Your task to perform on an android device: uninstall "Google Duo" Image 0: 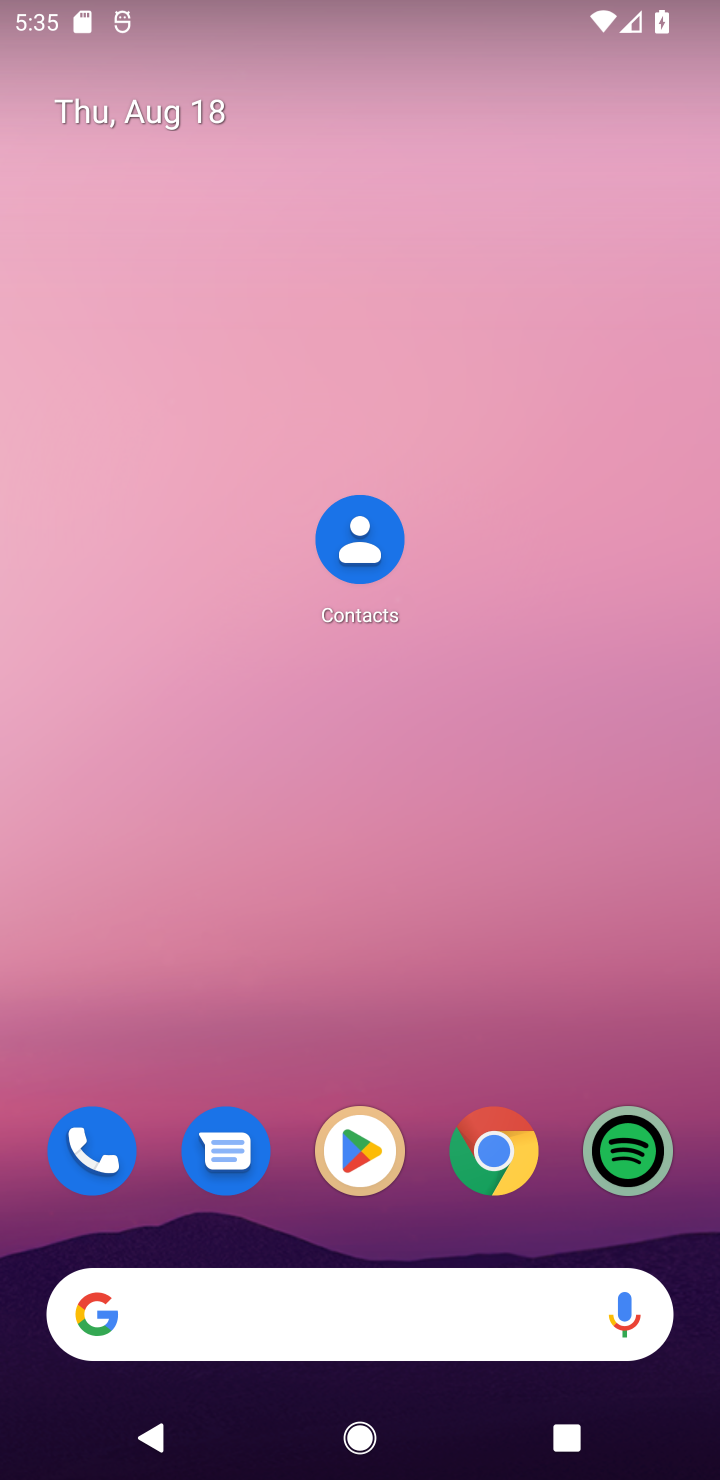
Step 0: click (381, 1180)
Your task to perform on an android device: uninstall "Google Duo" Image 1: 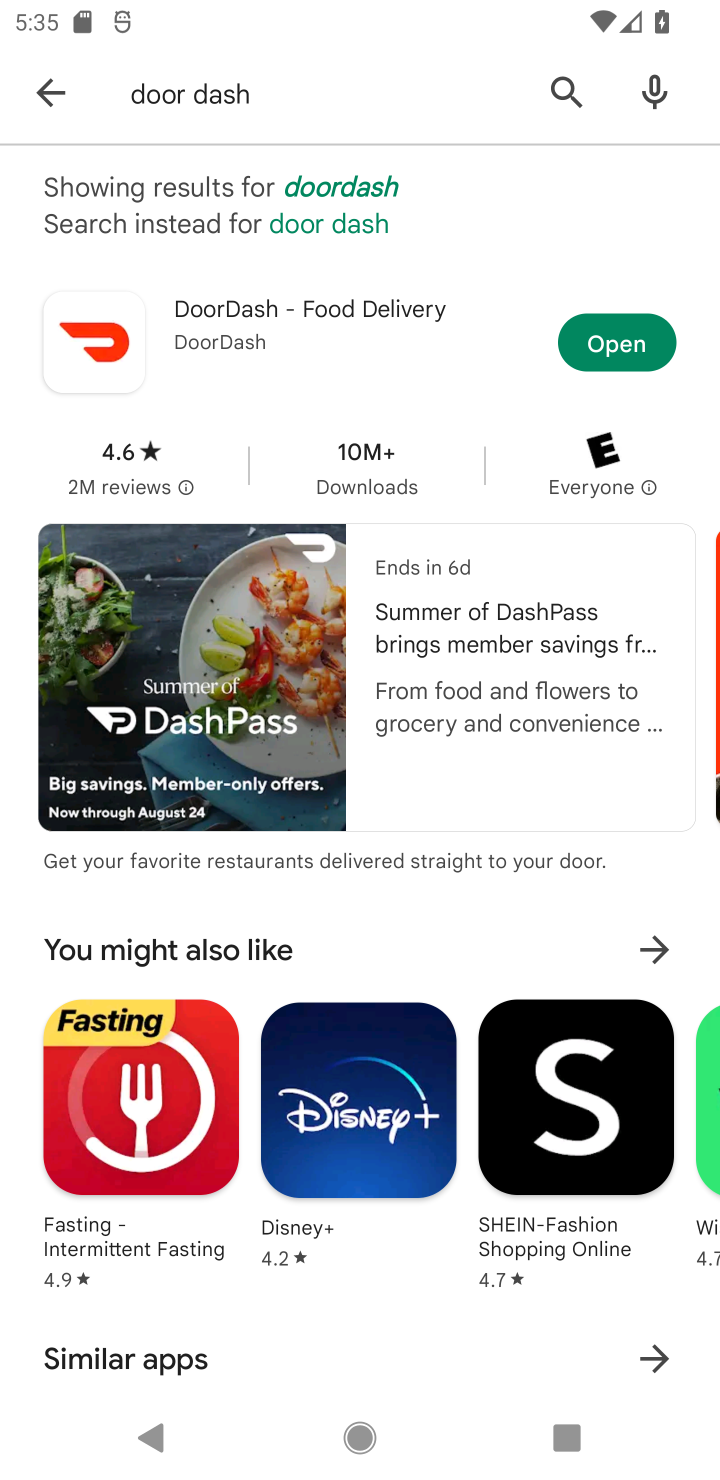
Step 1: click (556, 110)
Your task to perform on an android device: uninstall "Google Duo" Image 2: 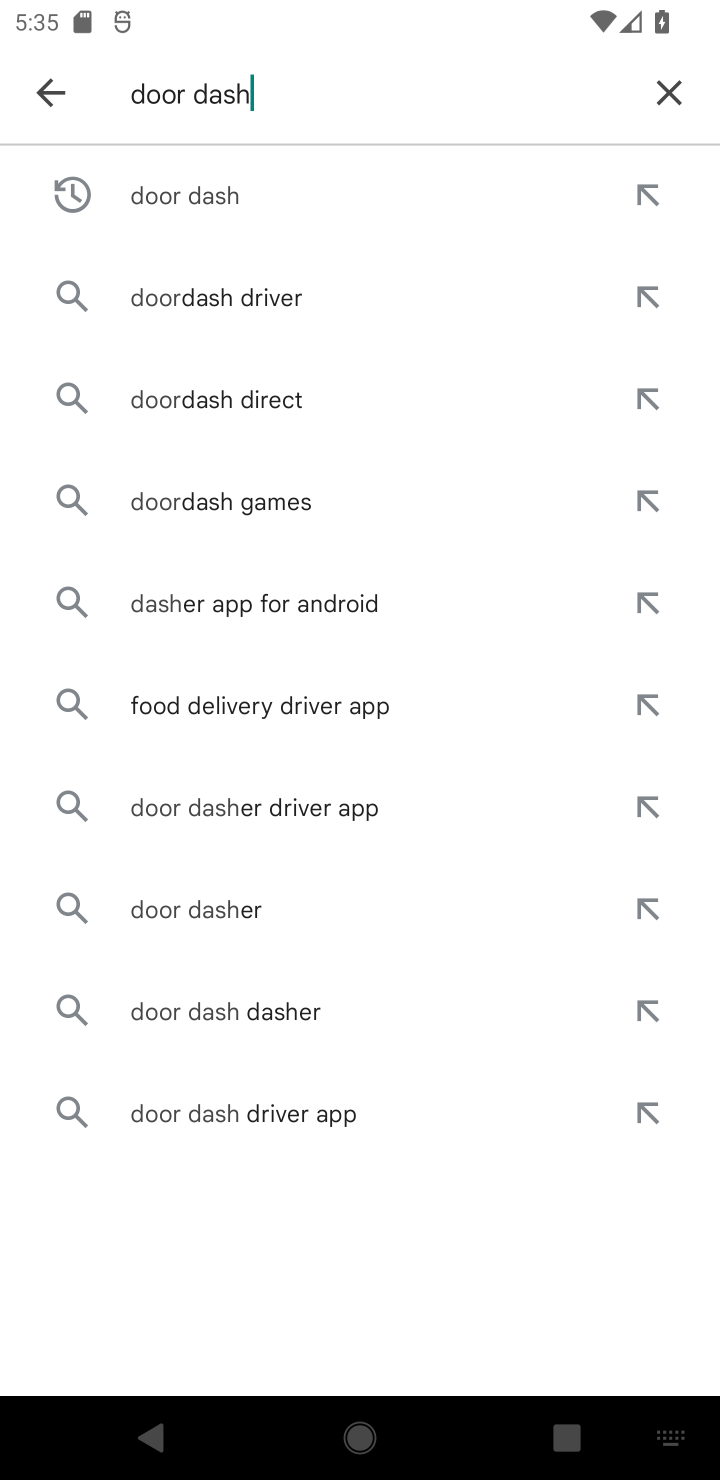
Step 2: click (639, 99)
Your task to perform on an android device: uninstall "Google Duo" Image 3: 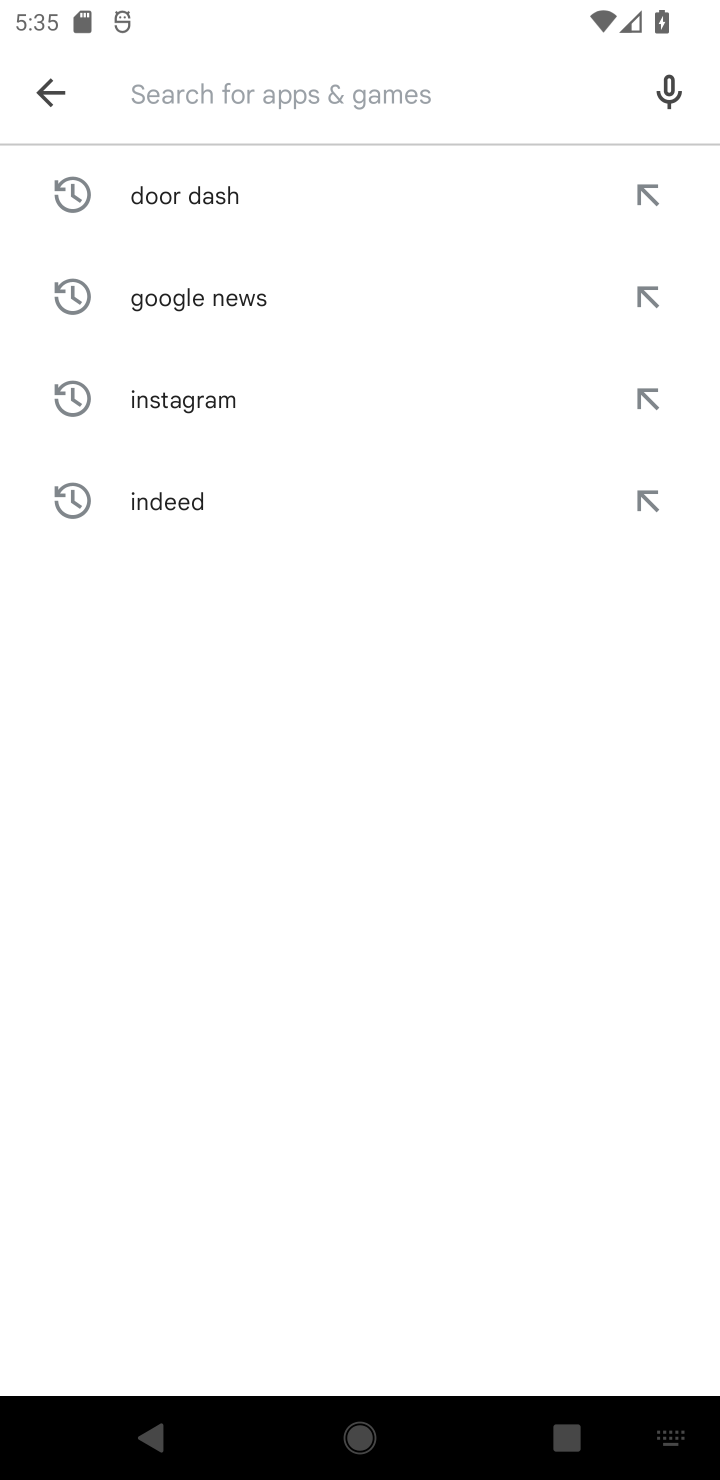
Step 3: type "duo"
Your task to perform on an android device: uninstall "Google Duo" Image 4: 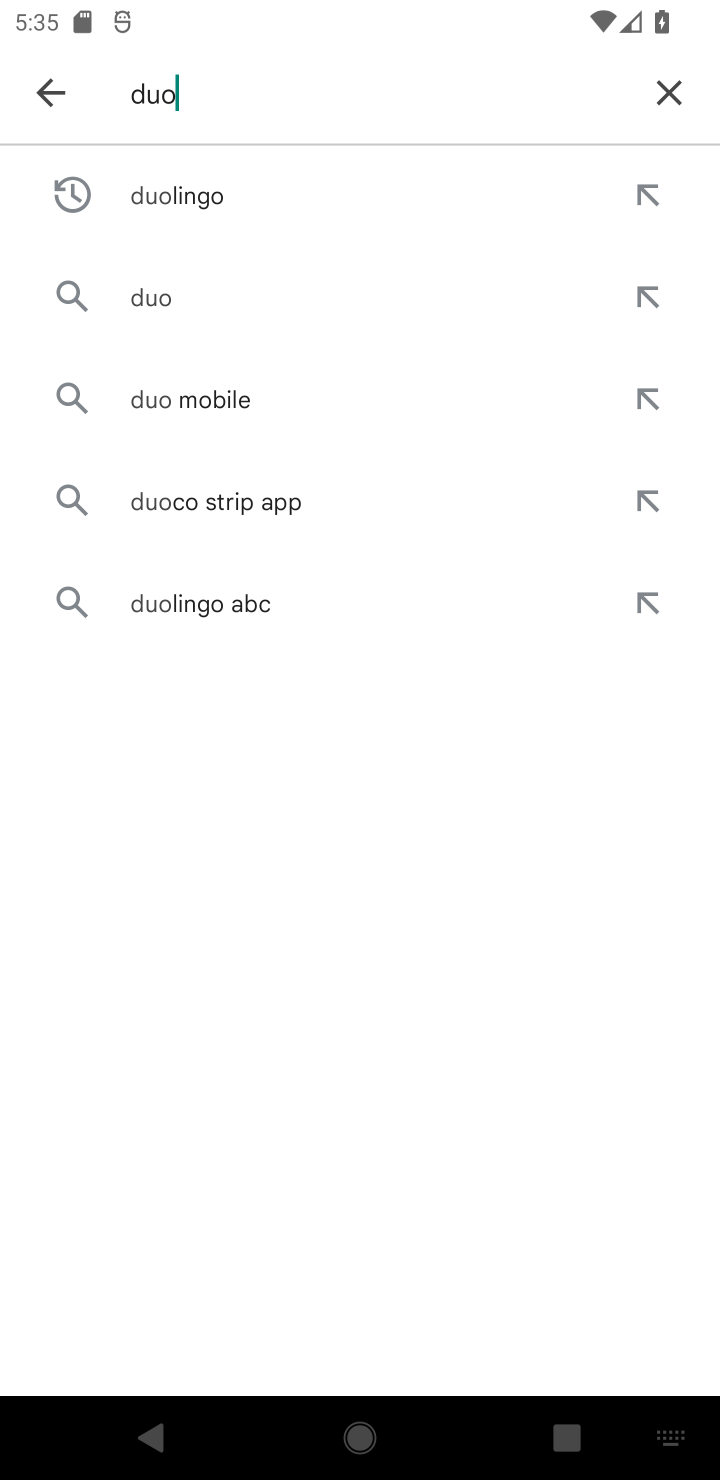
Step 4: click (267, 294)
Your task to perform on an android device: uninstall "Google Duo" Image 5: 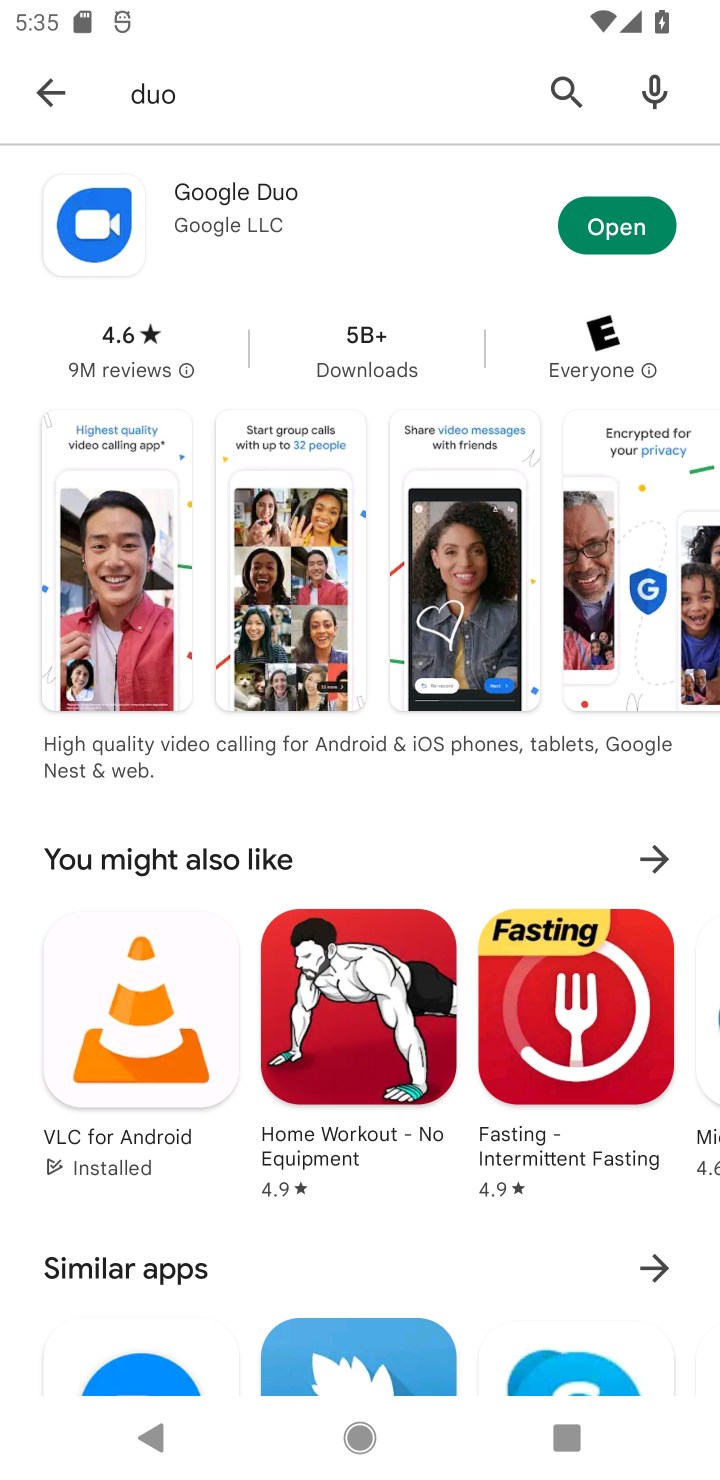
Step 5: click (585, 246)
Your task to perform on an android device: uninstall "Google Duo" Image 6: 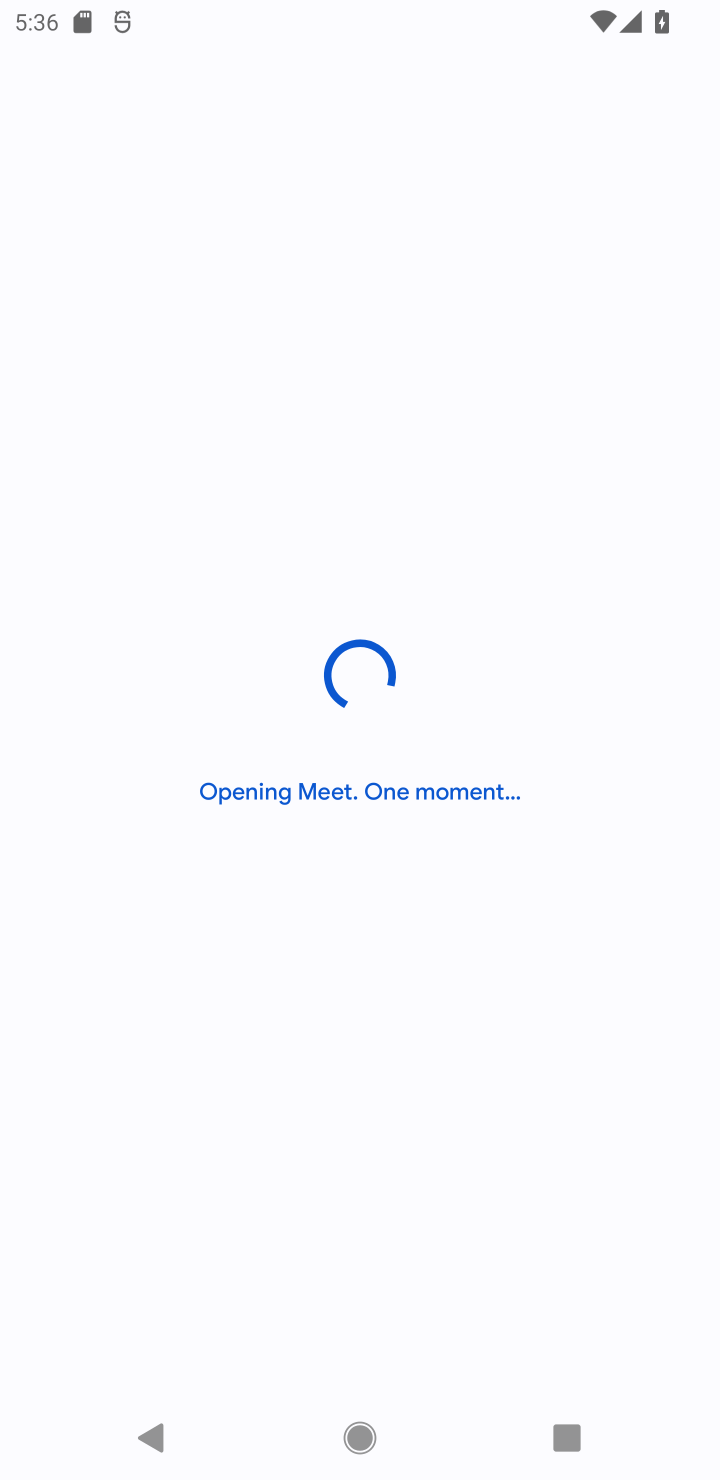
Step 6: press back button
Your task to perform on an android device: uninstall "Google Duo" Image 7: 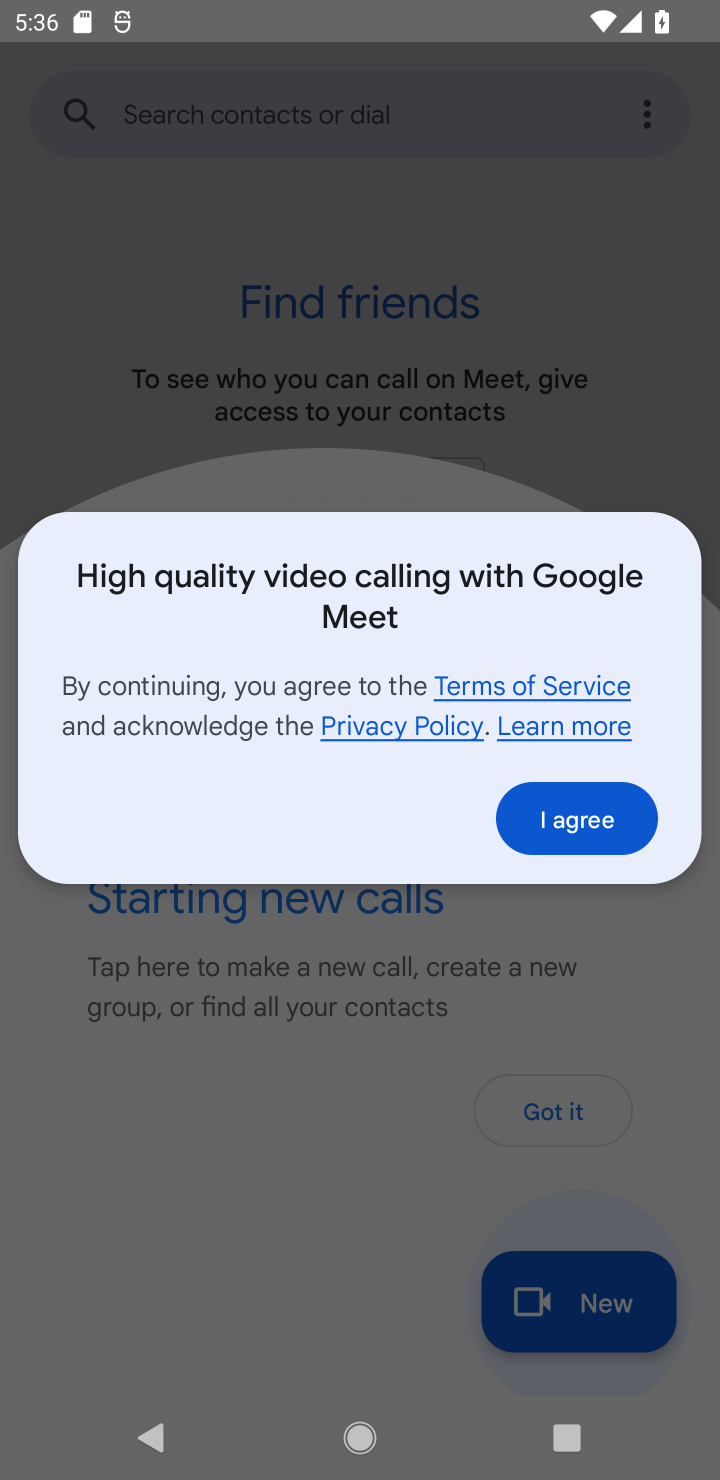
Step 7: click (620, 815)
Your task to perform on an android device: uninstall "Google Duo" Image 8: 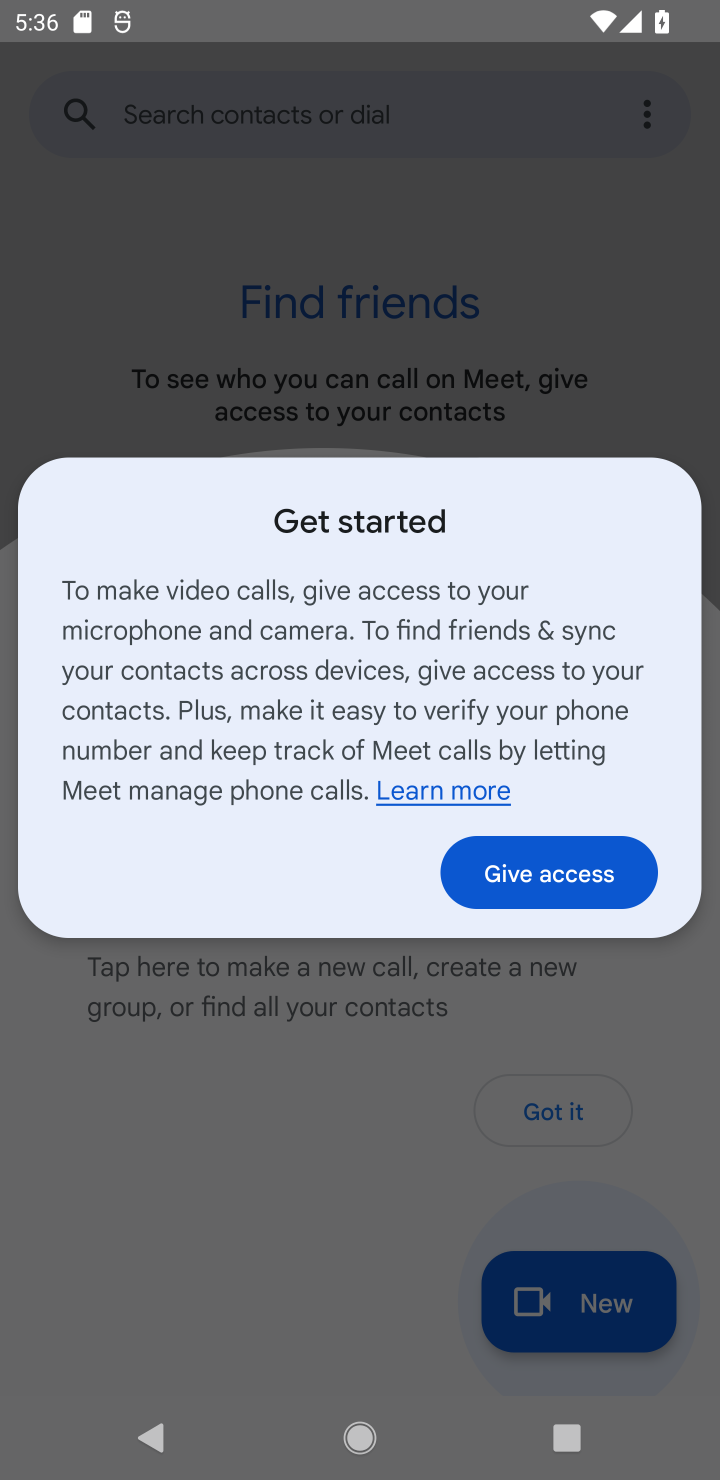
Step 8: press back button
Your task to perform on an android device: uninstall "Google Duo" Image 9: 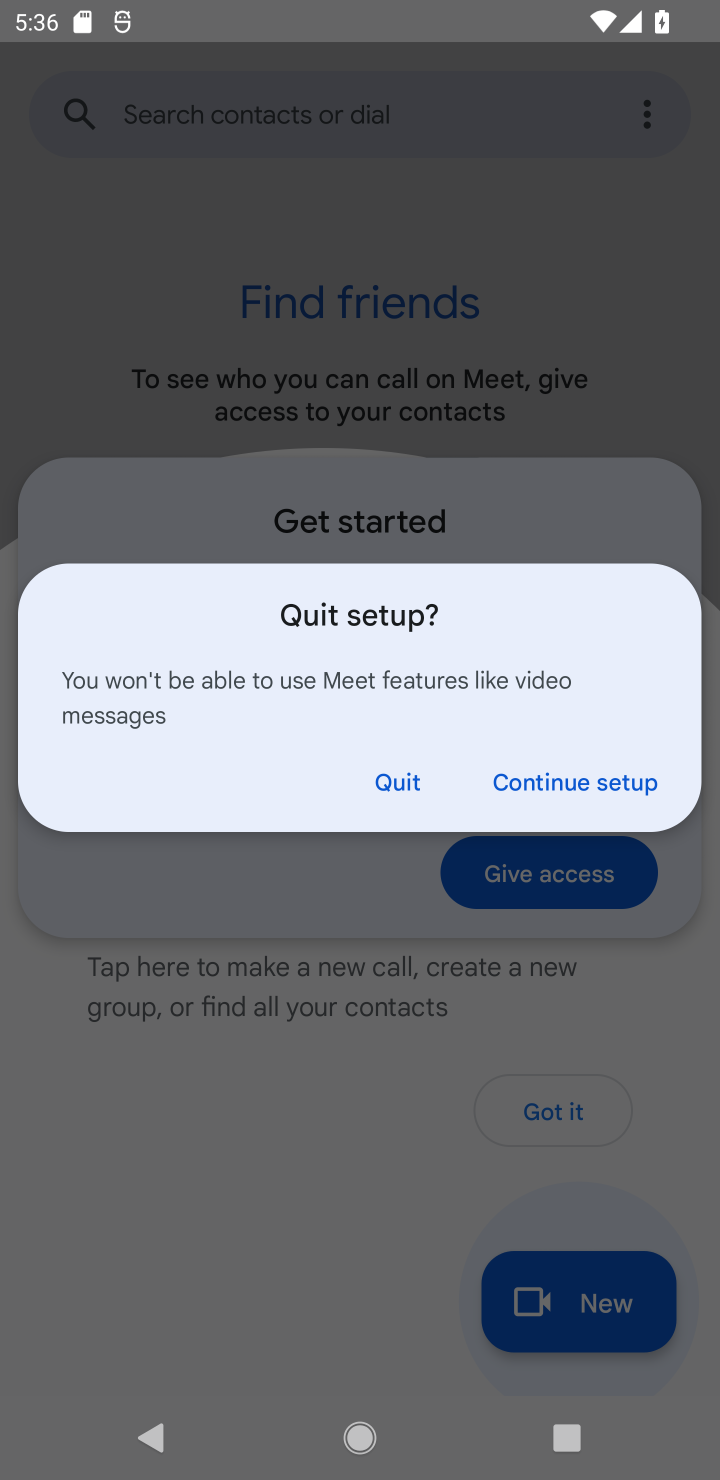
Step 9: click (608, 852)
Your task to perform on an android device: uninstall "Google Duo" Image 10: 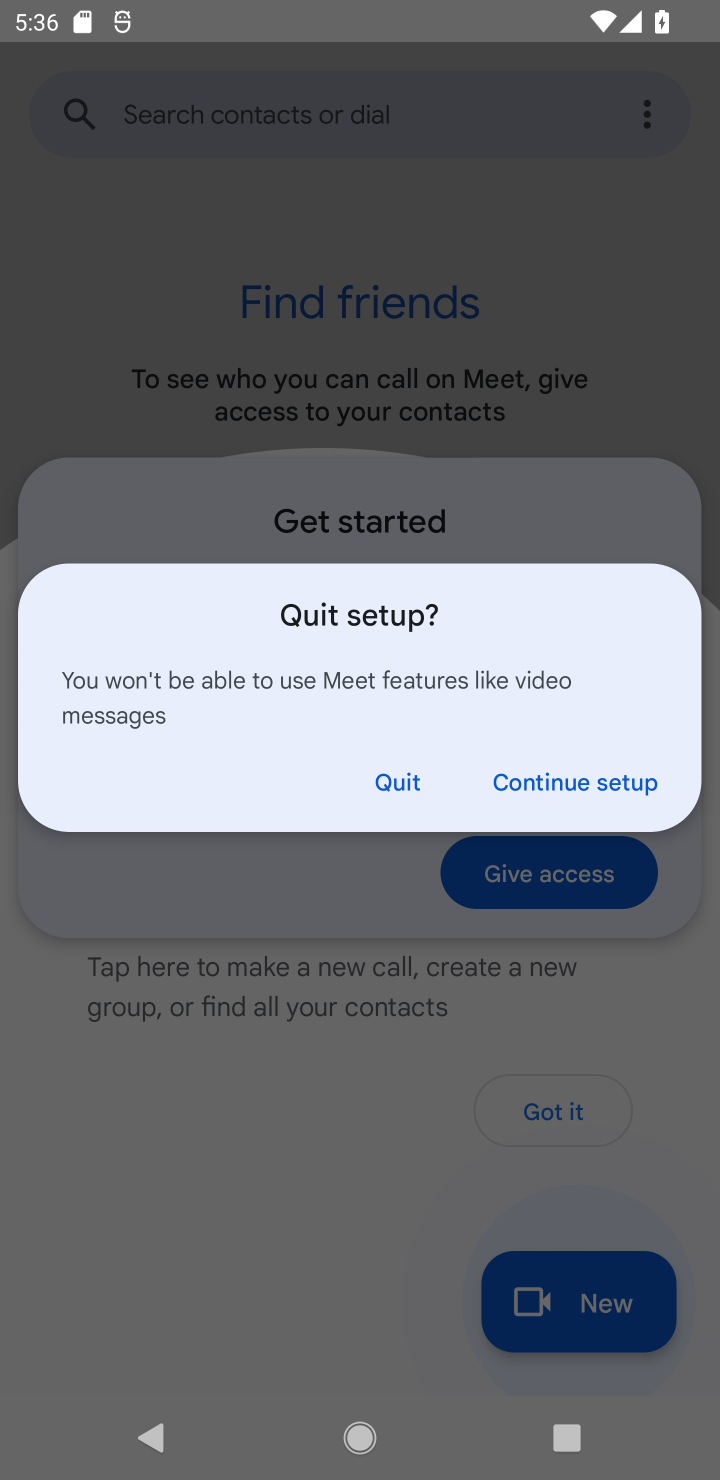
Step 10: click (405, 795)
Your task to perform on an android device: uninstall "Google Duo" Image 11: 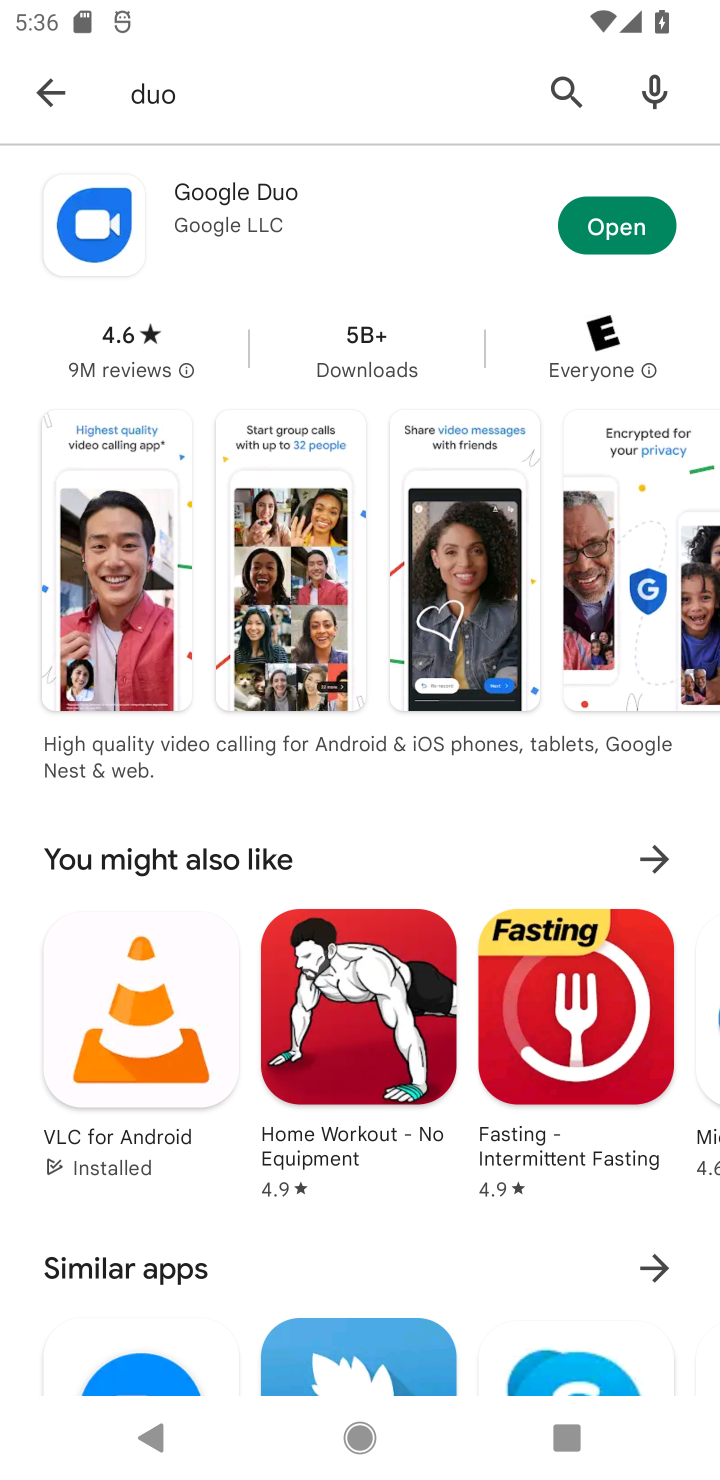
Step 11: task complete